Your task to perform on an android device: open device folders in google photos Image 0: 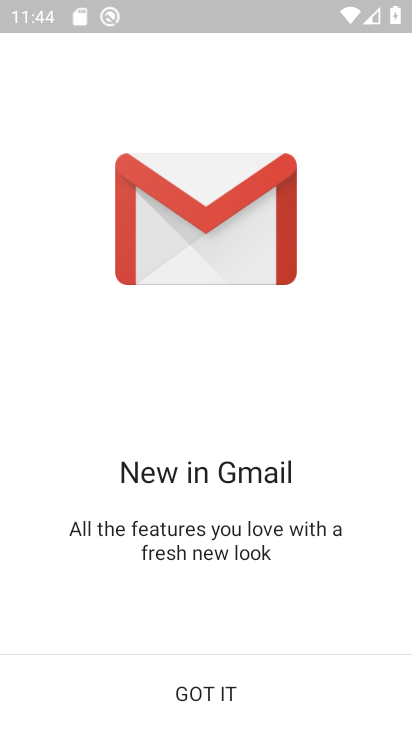
Step 0: click (308, 707)
Your task to perform on an android device: open device folders in google photos Image 1: 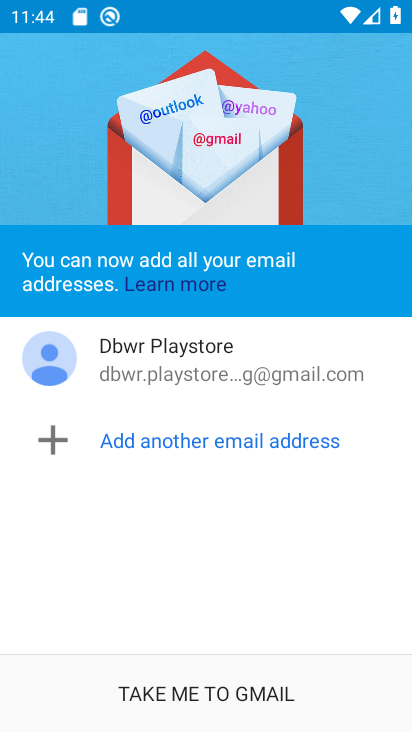
Step 1: press home button
Your task to perform on an android device: open device folders in google photos Image 2: 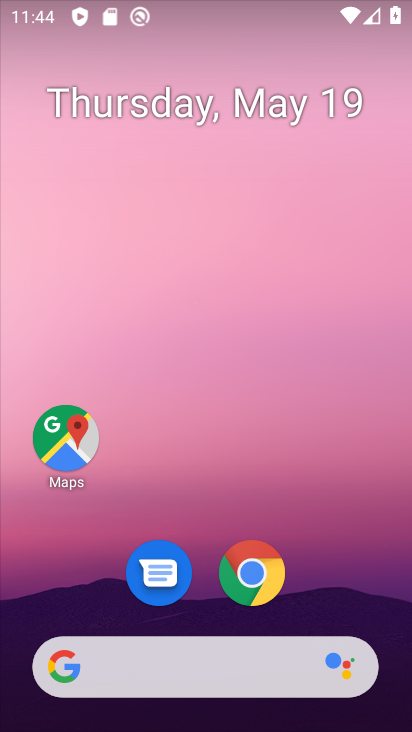
Step 2: drag from (205, 607) to (268, 155)
Your task to perform on an android device: open device folders in google photos Image 3: 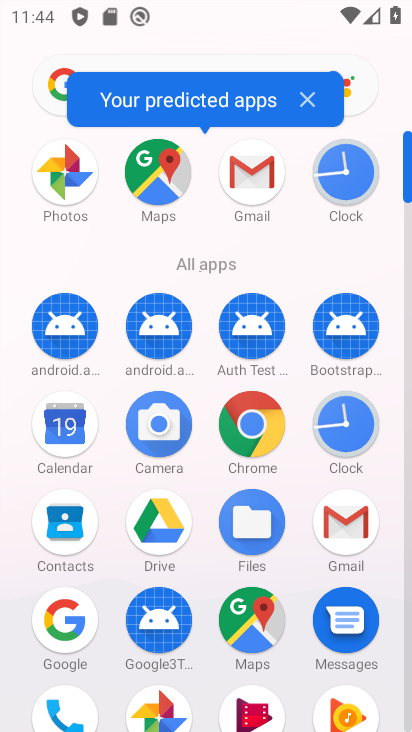
Step 3: drag from (214, 535) to (225, 408)
Your task to perform on an android device: open device folders in google photos Image 4: 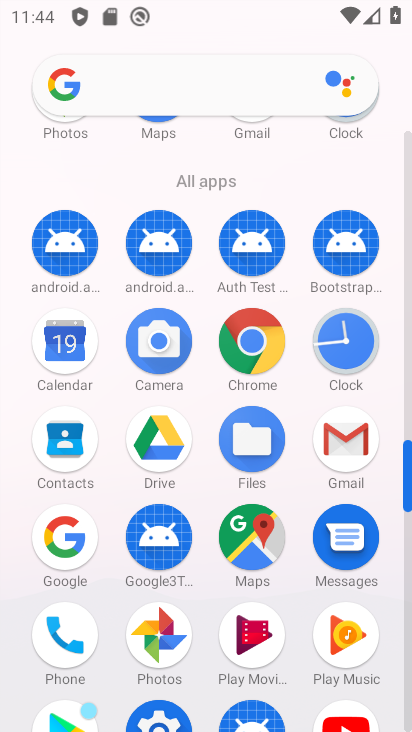
Step 4: click (172, 640)
Your task to perform on an android device: open device folders in google photos Image 5: 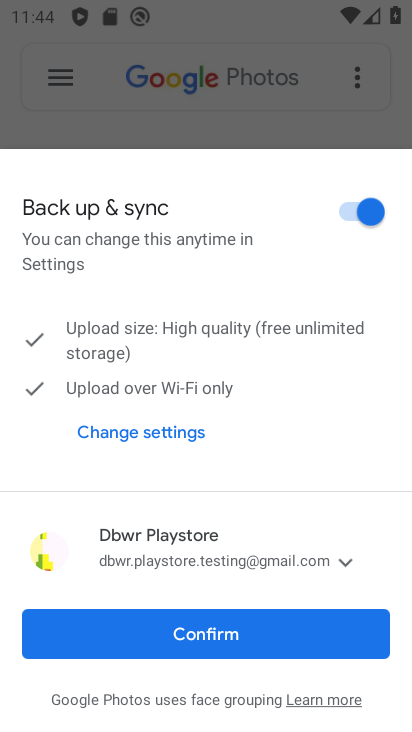
Step 5: click (190, 641)
Your task to perform on an android device: open device folders in google photos Image 6: 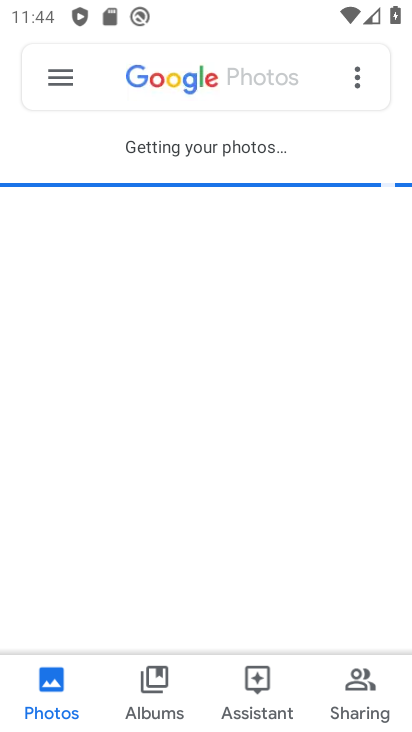
Step 6: click (55, 70)
Your task to perform on an android device: open device folders in google photos Image 7: 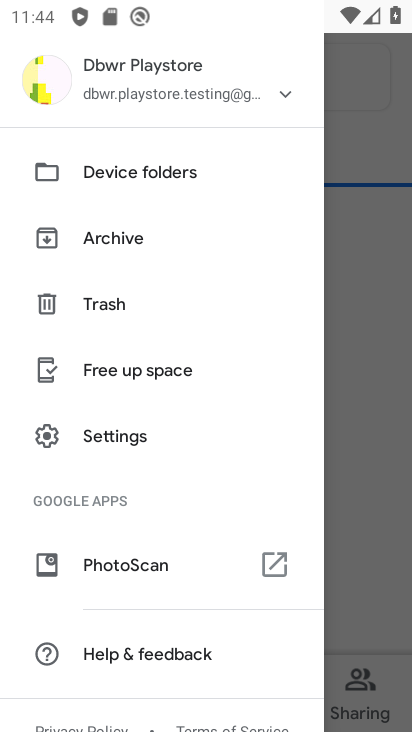
Step 7: click (142, 187)
Your task to perform on an android device: open device folders in google photos Image 8: 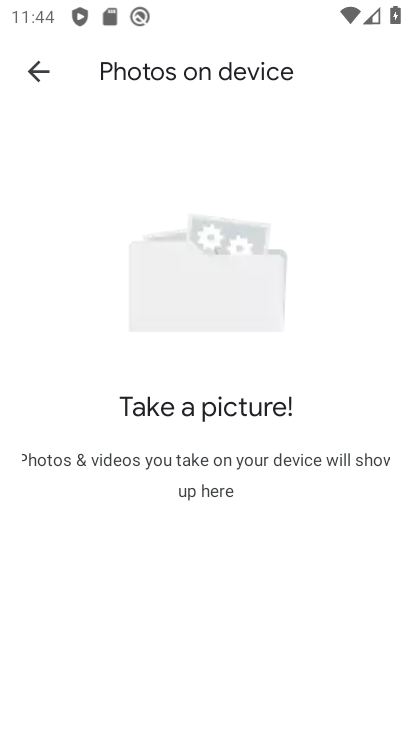
Step 8: task complete